Your task to perform on an android device: Empty the shopping cart on newegg. Search for alienware aurora on newegg, select the first entry, and add it to the cart. Image 0: 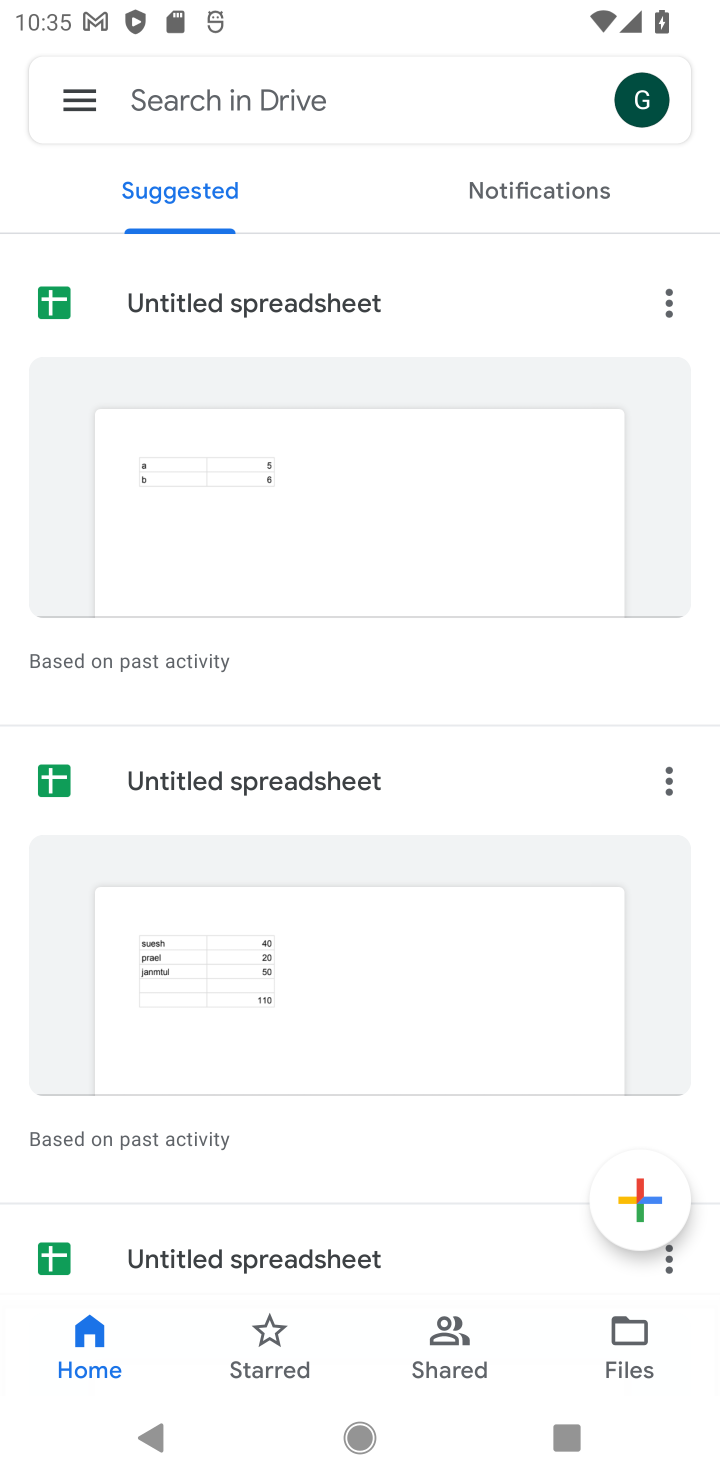
Step 0: press home button
Your task to perform on an android device: Empty the shopping cart on newegg. Search for alienware aurora on newegg, select the first entry, and add it to the cart. Image 1: 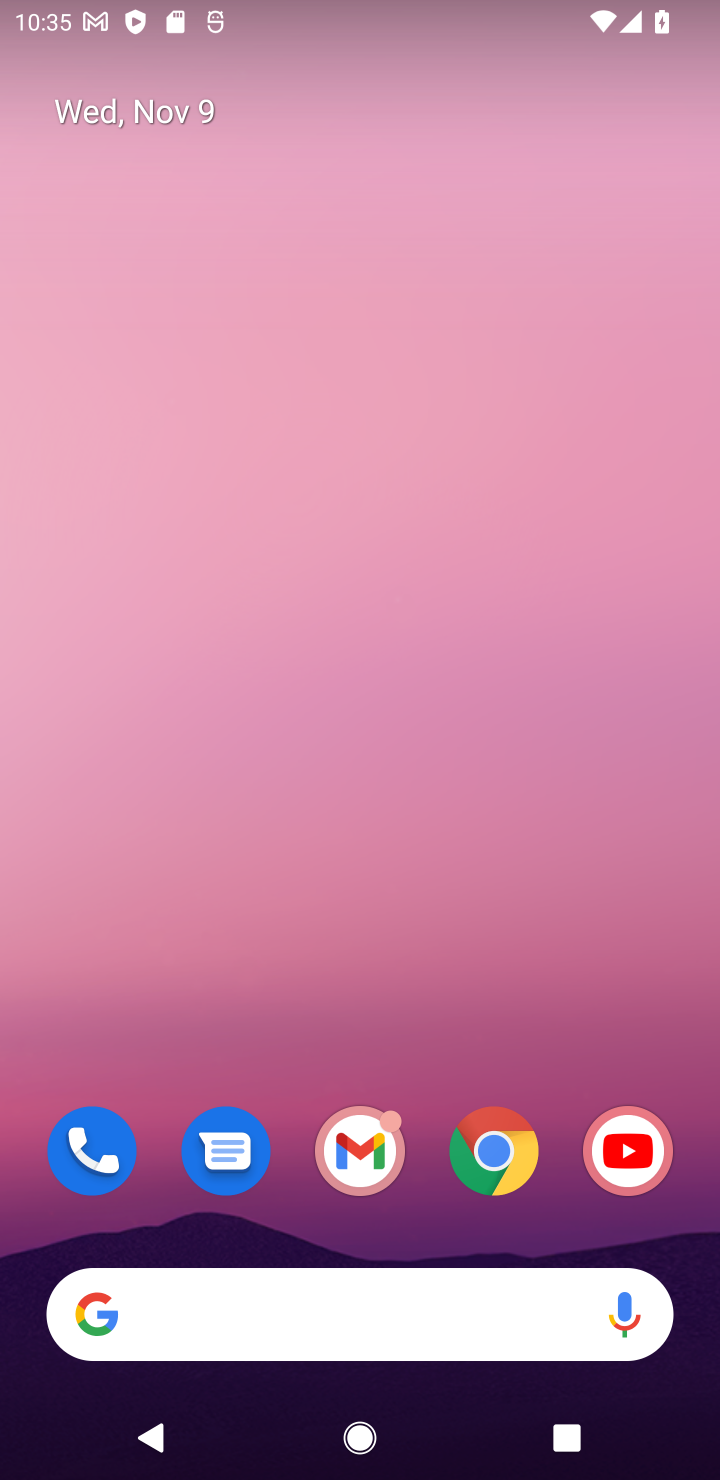
Step 1: click (490, 1144)
Your task to perform on an android device: Empty the shopping cart on newegg. Search for alienware aurora on newegg, select the first entry, and add it to the cart. Image 2: 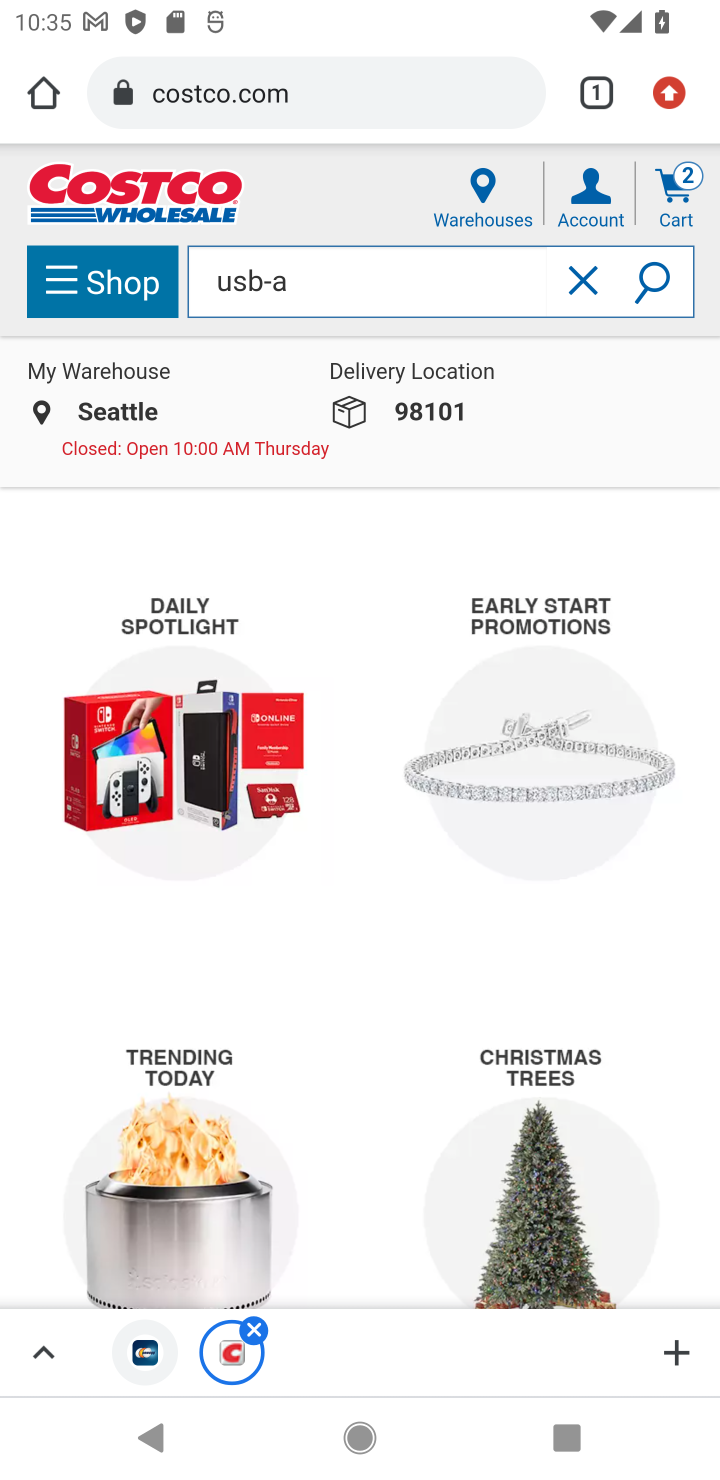
Step 2: click (383, 93)
Your task to perform on an android device: Empty the shopping cart on newegg. Search for alienware aurora on newegg, select the first entry, and add it to the cart. Image 3: 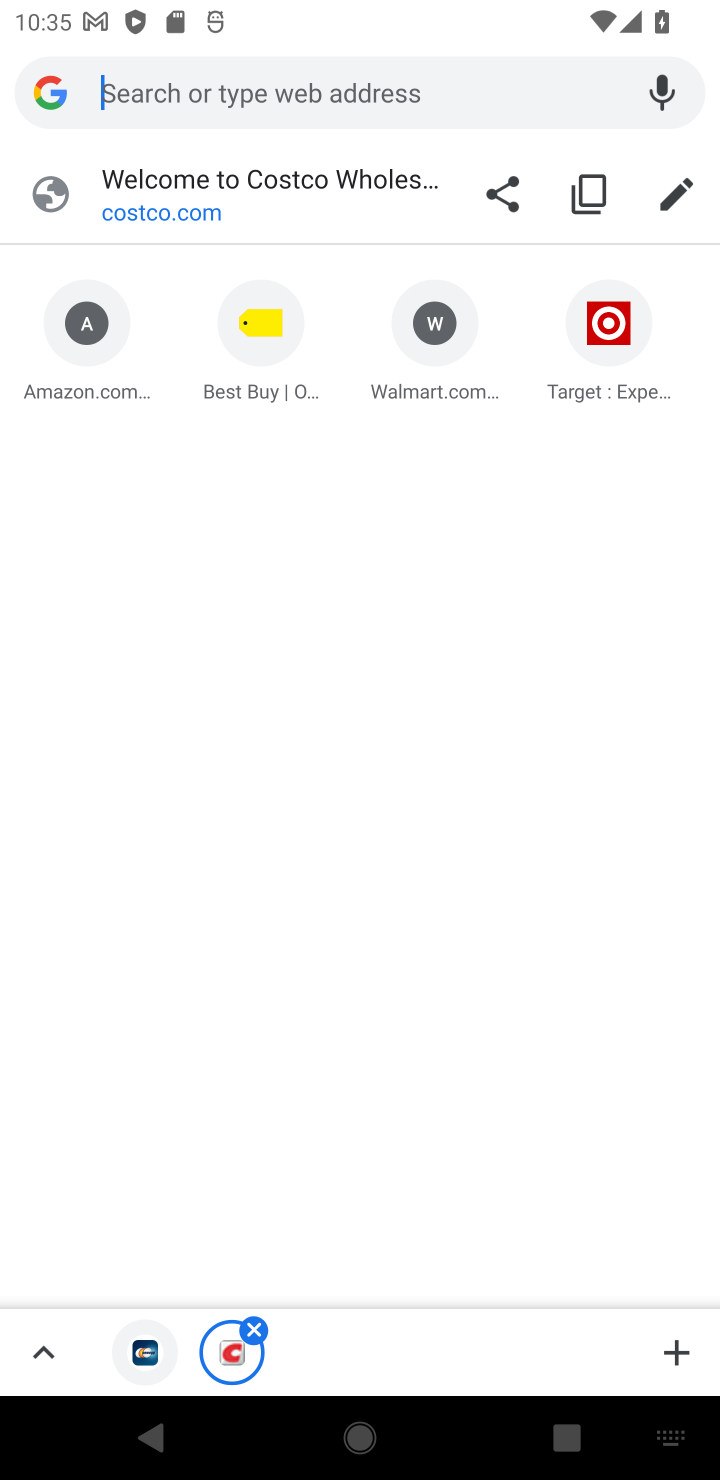
Step 3: press enter
Your task to perform on an android device: Empty the shopping cart on newegg. Search for alienware aurora on newegg, select the first entry, and add it to the cart. Image 4: 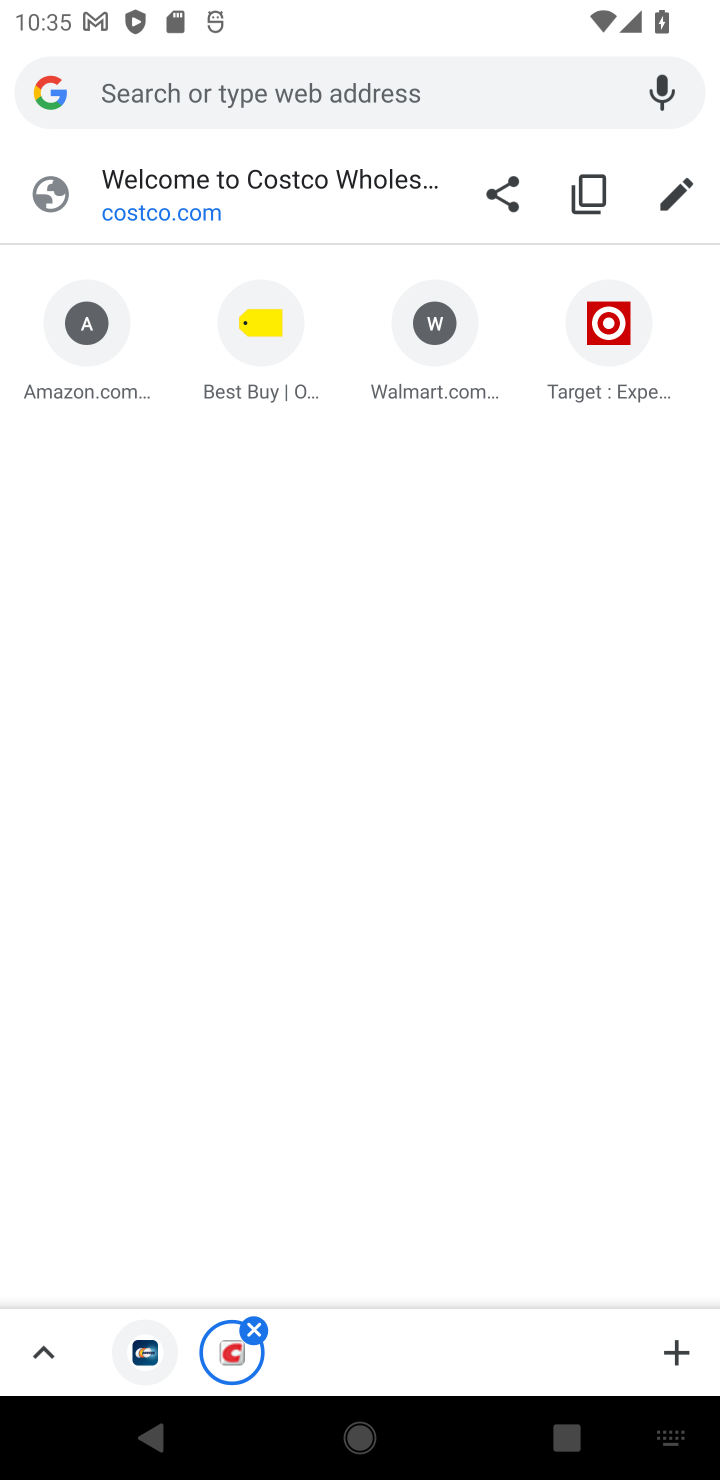
Step 4: type "newegg"
Your task to perform on an android device: Empty the shopping cart on newegg. Search for alienware aurora on newegg, select the first entry, and add it to the cart. Image 5: 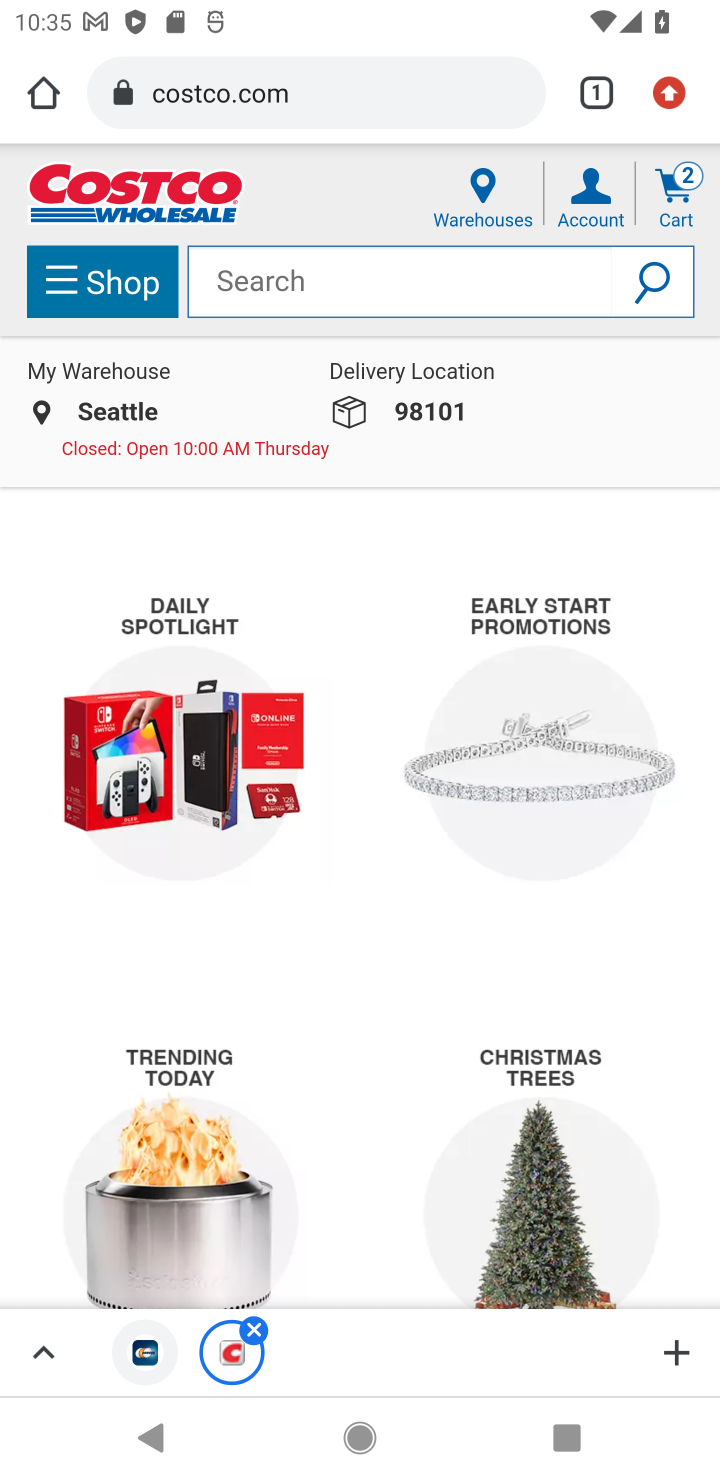
Step 5: click (387, 84)
Your task to perform on an android device: Empty the shopping cart on newegg. Search for alienware aurora on newegg, select the first entry, and add it to the cart. Image 6: 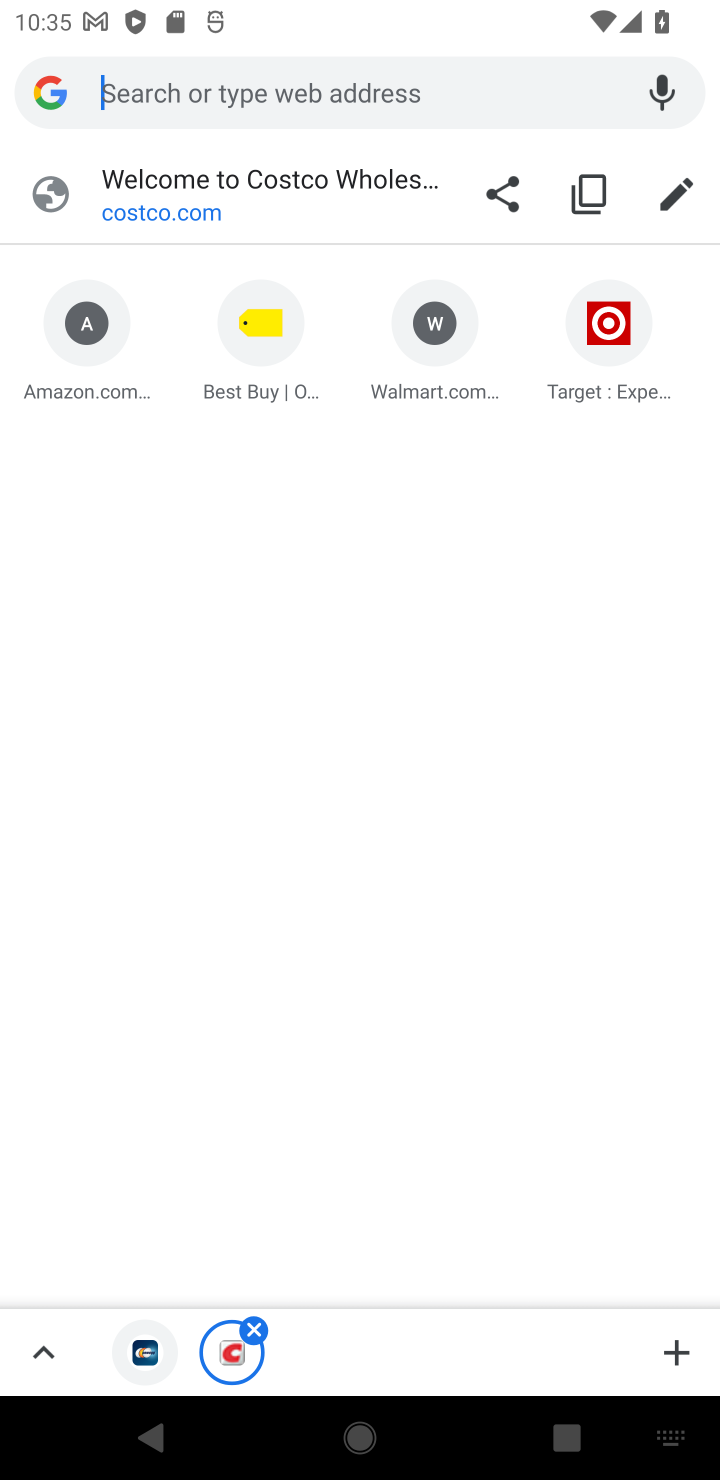
Step 6: type "newegg"
Your task to perform on an android device: Empty the shopping cart on newegg. Search for alienware aurora on newegg, select the first entry, and add it to the cart. Image 7: 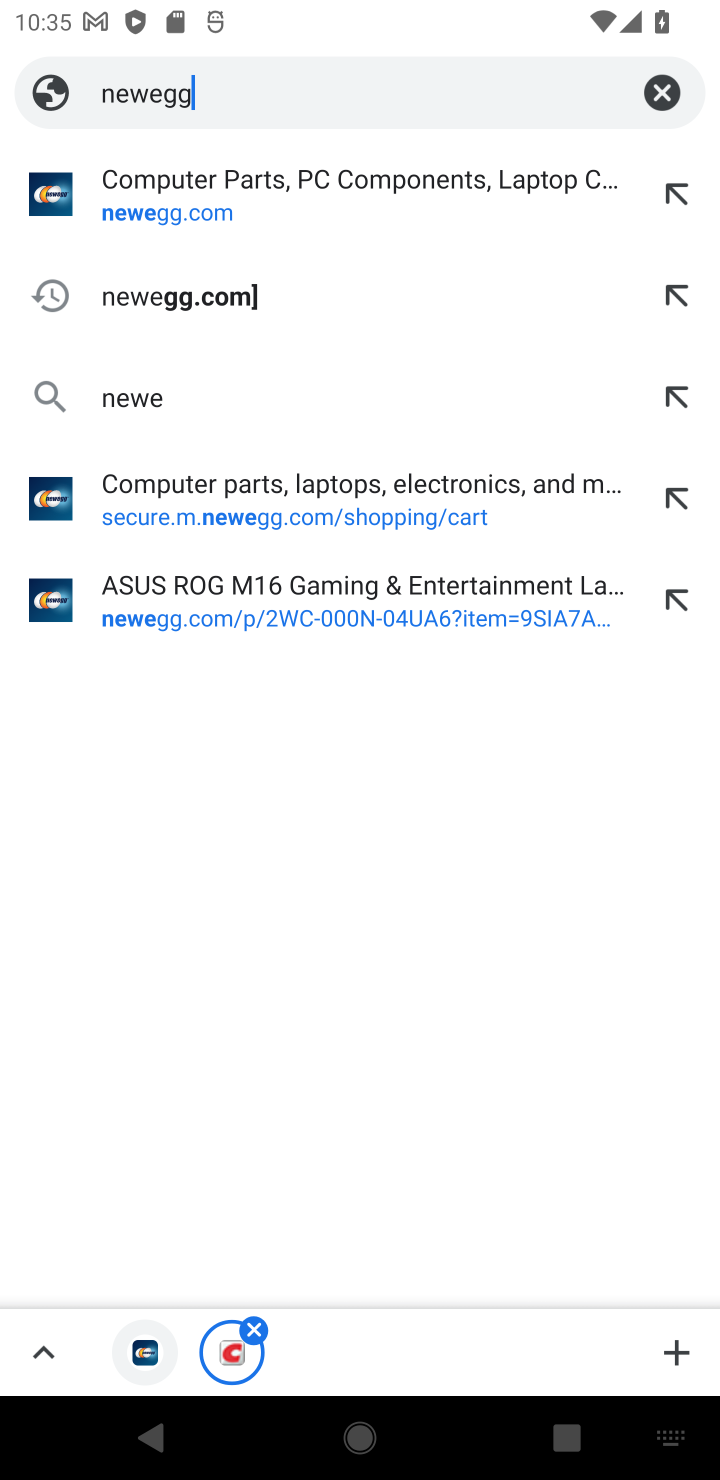
Step 7: press enter
Your task to perform on an android device: Empty the shopping cart on newegg. Search for alienware aurora on newegg, select the first entry, and add it to the cart. Image 8: 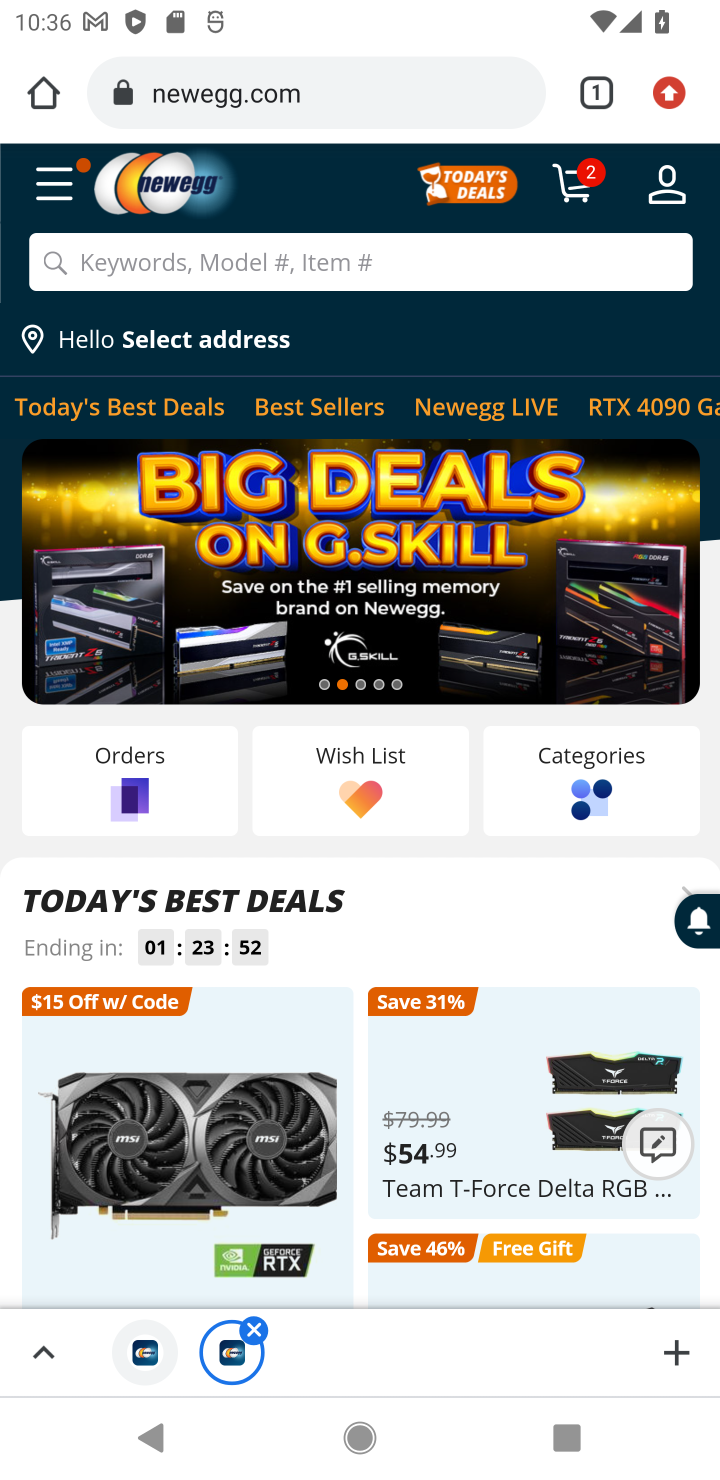
Step 8: click (570, 180)
Your task to perform on an android device: Empty the shopping cart on newegg. Search for alienware aurora on newegg, select the first entry, and add it to the cart. Image 9: 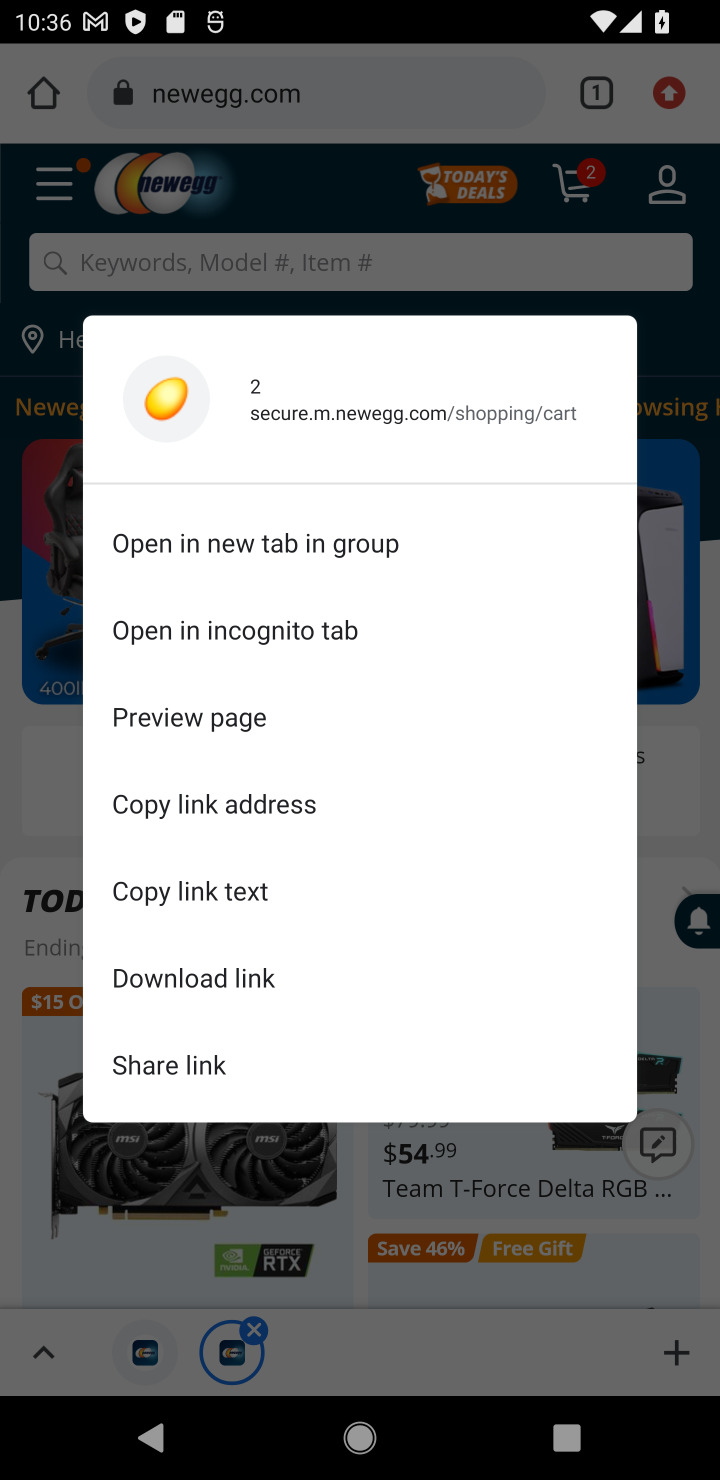
Step 9: click (570, 180)
Your task to perform on an android device: Empty the shopping cart on newegg. Search for alienware aurora on newegg, select the first entry, and add it to the cart. Image 10: 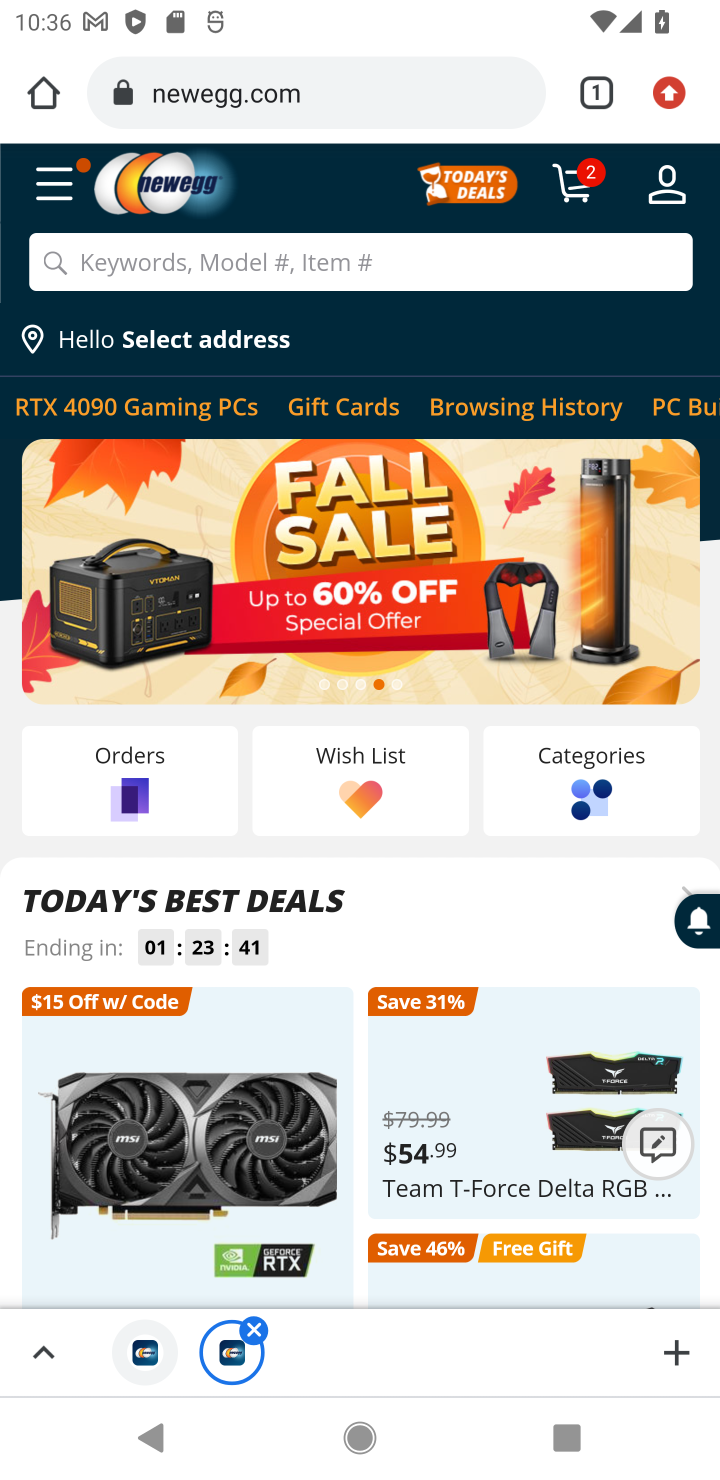
Step 10: click (570, 180)
Your task to perform on an android device: Empty the shopping cart on newegg. Search for alienware aurora on newegg, select the first entry, and add it to the cart. Image 11: 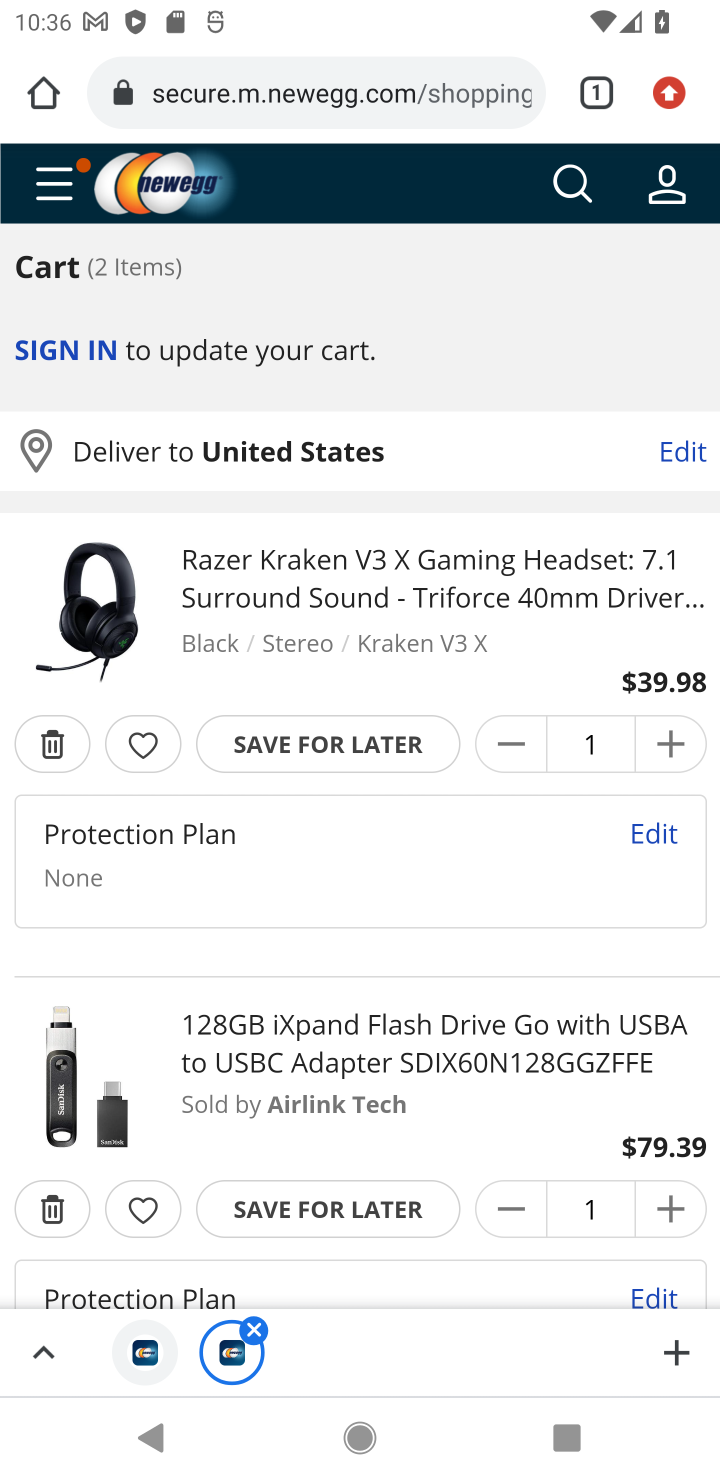
Step 11: click (61, 739)
Your task to perform on an android device: Empty the shopping cart on newegg. Search for alienware aurora on newegg, select the first entry, and add it to the cart. Image 12: 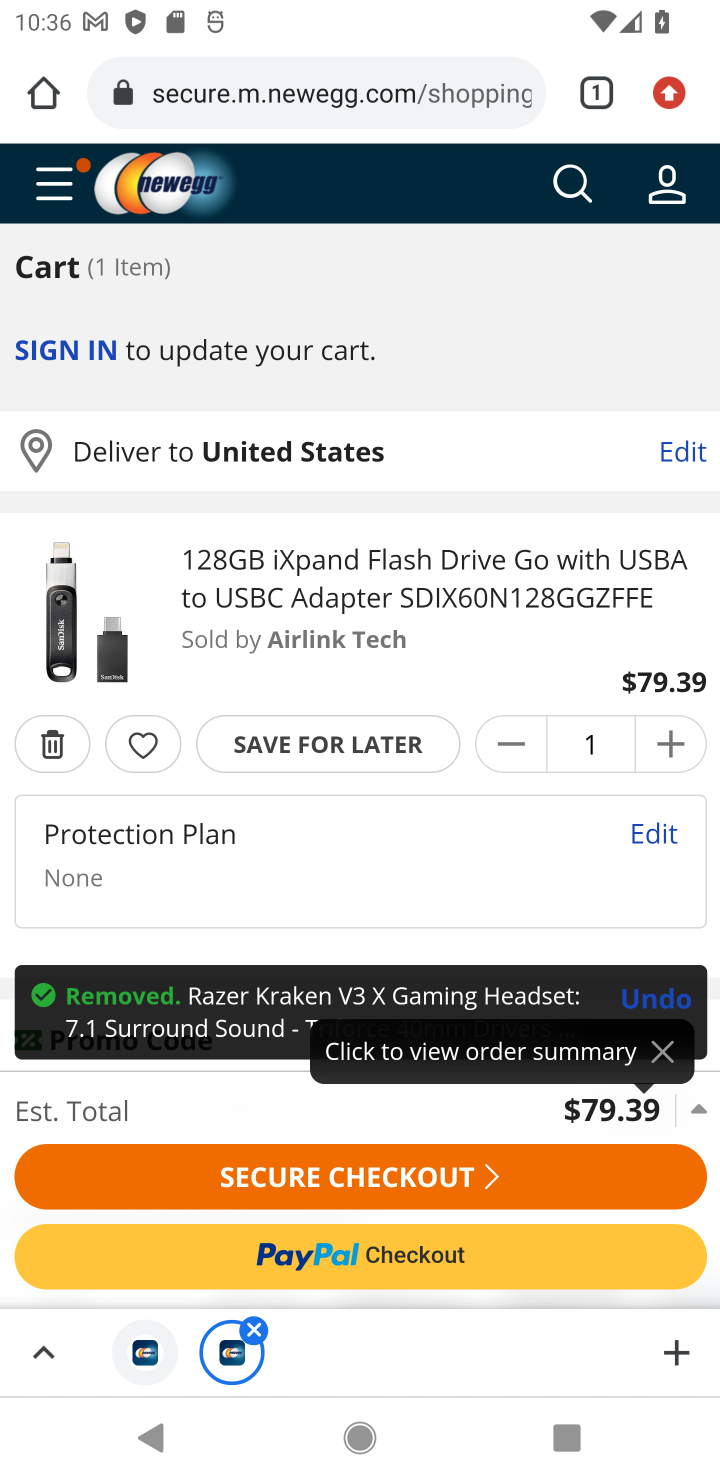
Step 12: click (61, 739)
Your task to perform on an android device: Empty the shopping cart on newegg. Search for alienware aurora on newegg, select the first entry, and add it to the cart. Image 13: 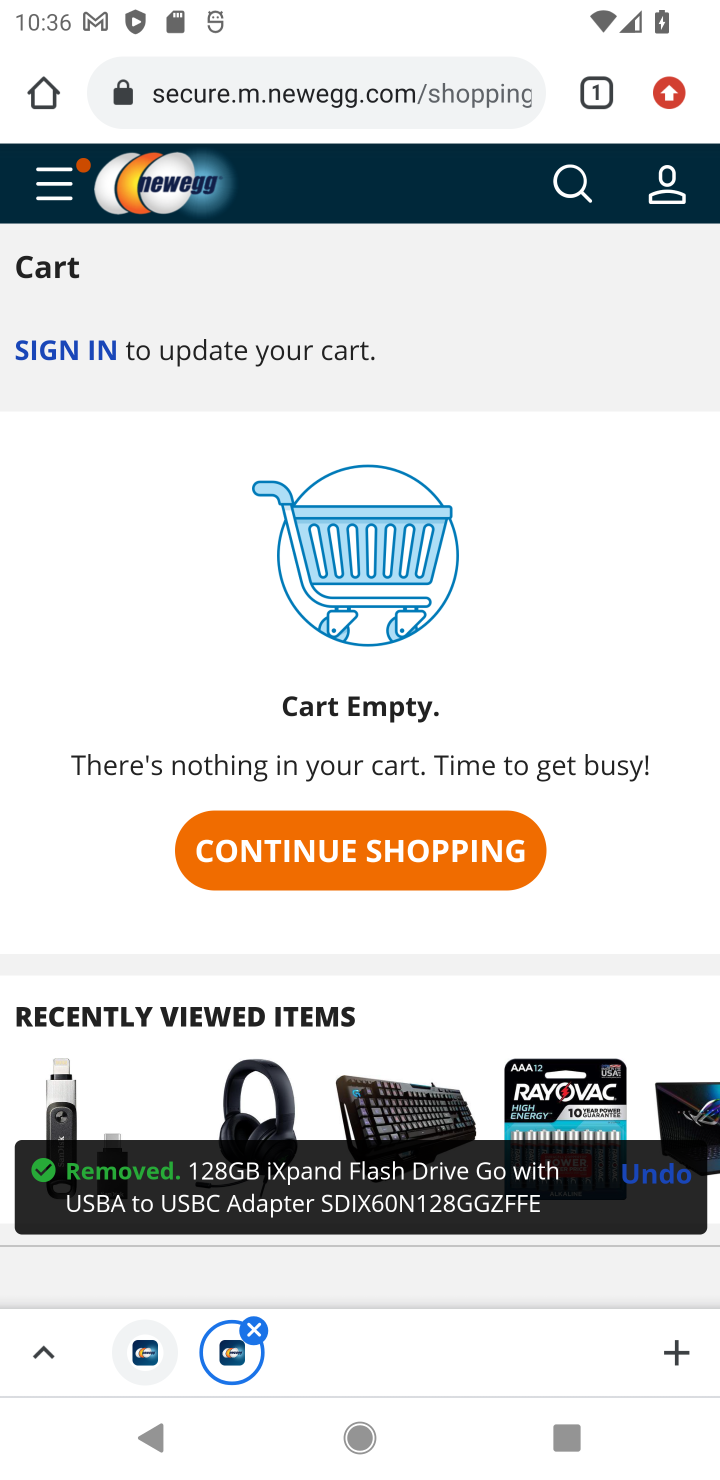
Step 13: click (565, 197)
Your task to perform on an android device: Empty the shopping cart on newegg. Search for alienware aurora on newegg, select the first entry, and add it to the cart. Image 14: 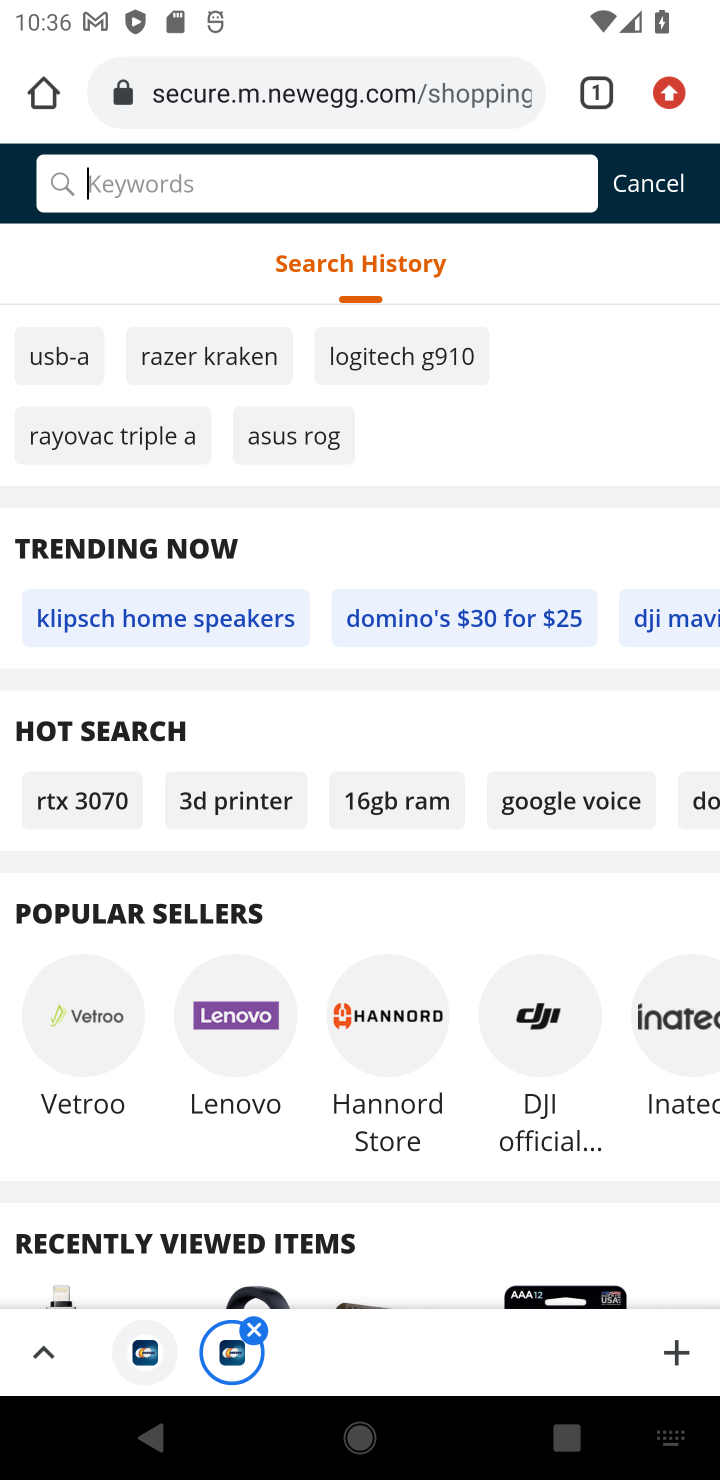
Step 14: type "alienware aurora"
Your task to perform on an android device: Empty the shopping cart on newegg. Search for alienware aurora on newegg, select the first entry, and add it to the cart. Image 15: 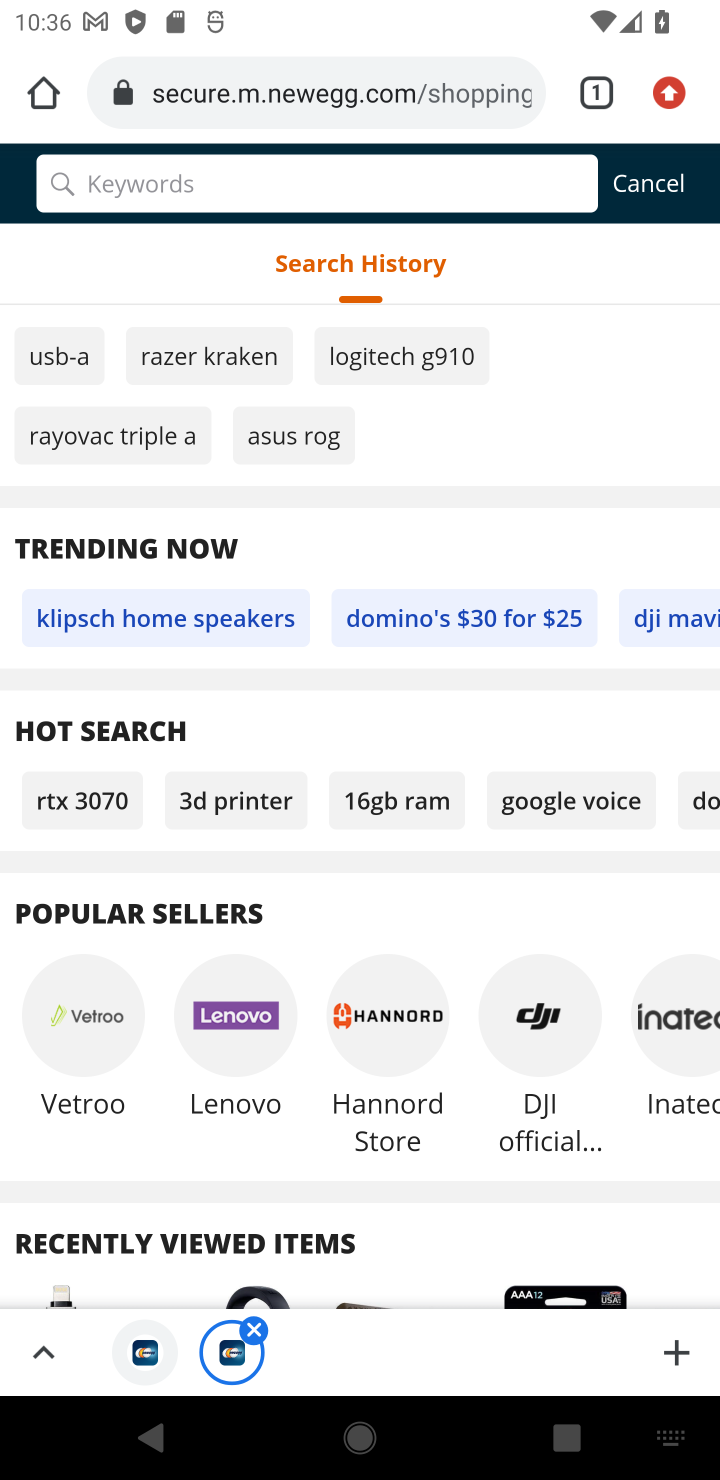
Step 15: press enter
Your task to perform on an android device: Empty the shopping cart on newegg. Search for alienware aurora on newegg, select the first entry, and add it to the cart. Image 16: 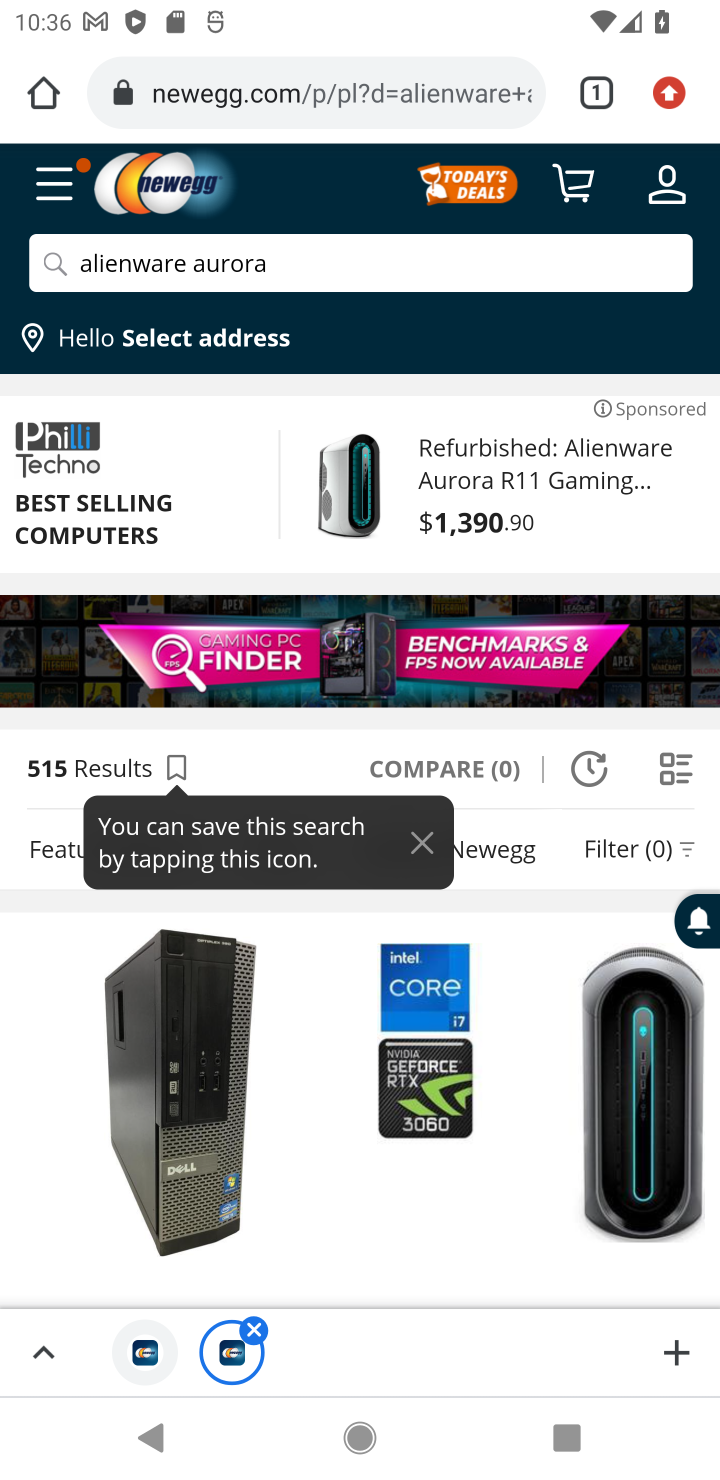
Step 16: drag from (363, 935) to (528, 449)
Your task to perform on an android device: Empty the shopping cart on newegg. Search for alienware aurora on newegg, select the first entry, and add it to the cart. Image 17: 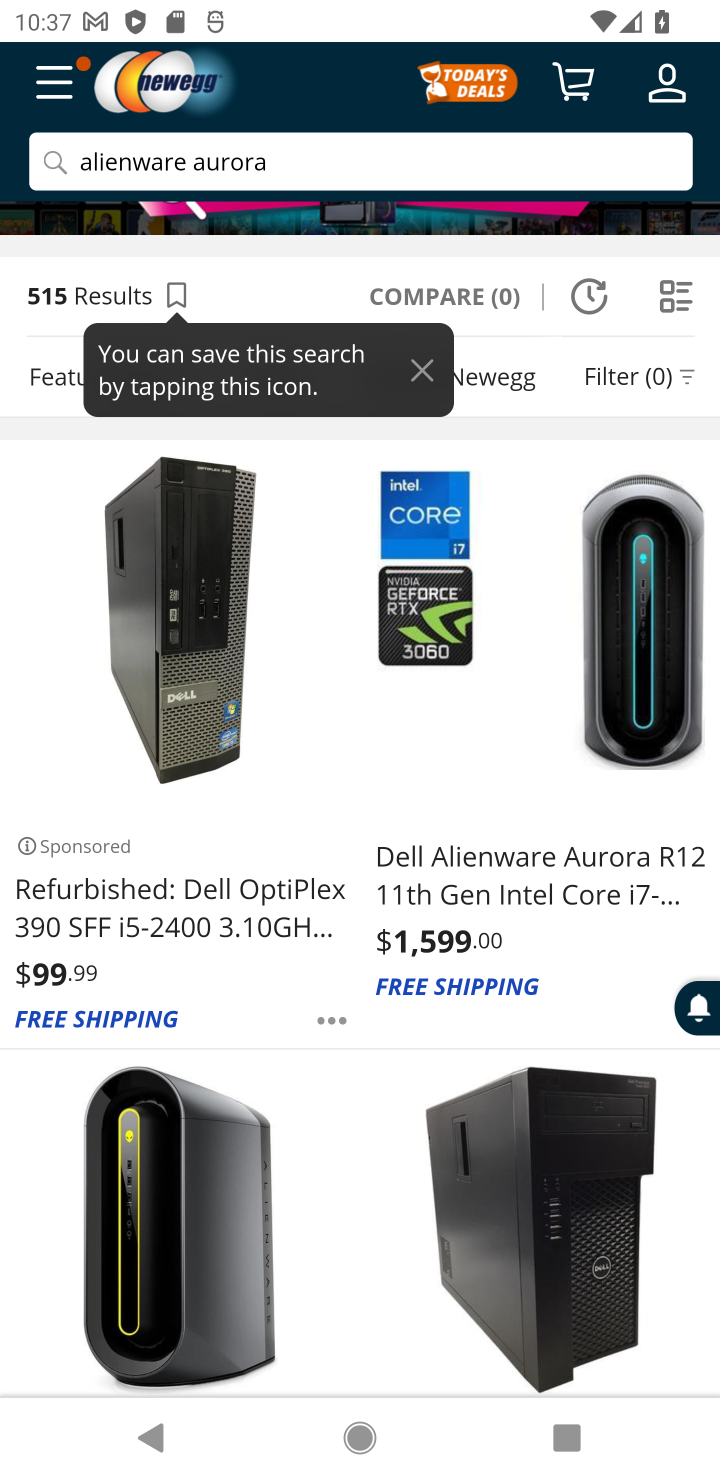
Step 17: click (549, 649)
Your task to perform on an android device: Empty the shopping cart on newegg. Search for alienware aurora on newegg, select the first entry, and add it to the cart. Image 18: 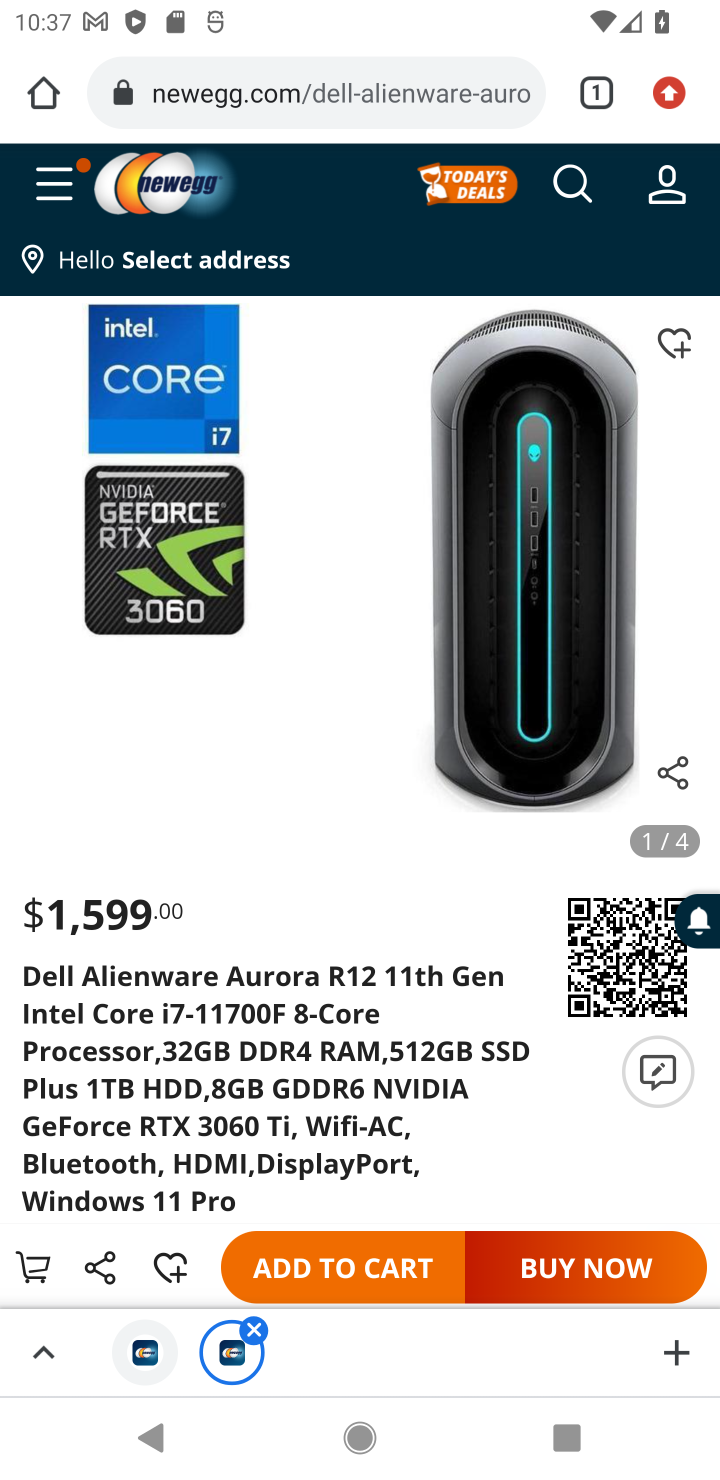
Step 18: click (357, 1275)
Your task to perform on an android device: Empty the shopping cart on newegg. Search for alienware aurora on newegg, select the first entry, and add it to the cart. Image 19: 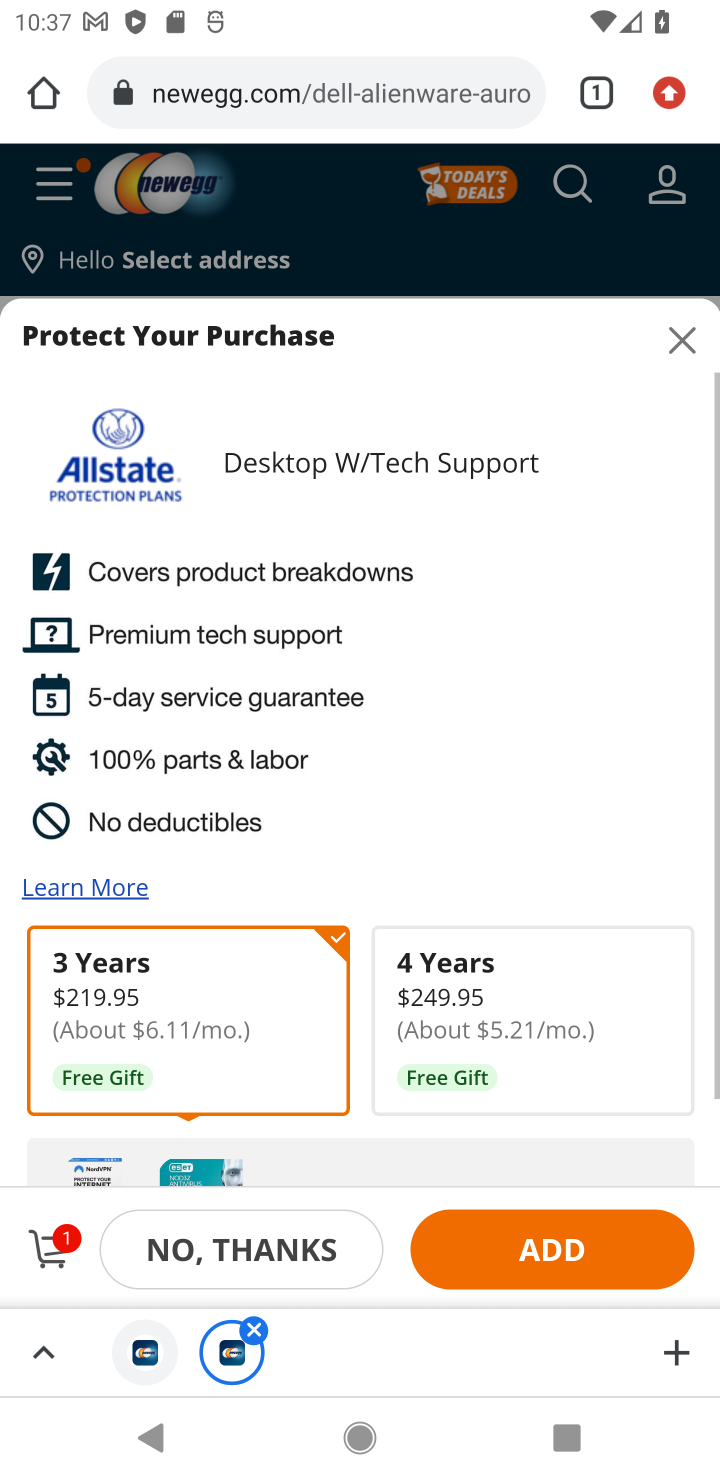
Step 19: task complete